Your task to perform on an android device: delete the emails in spam in the gmail app Image 0: 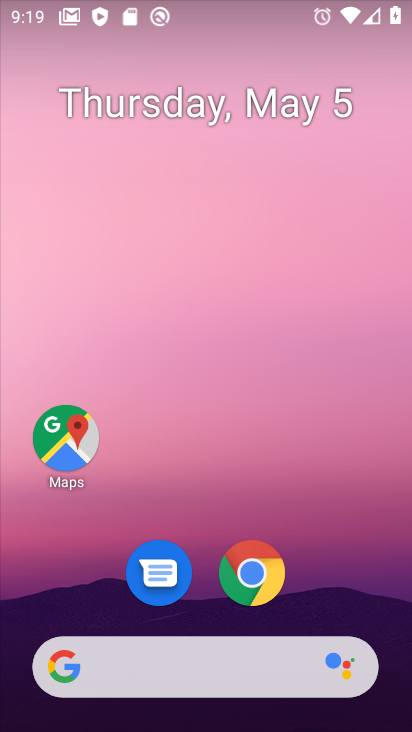
Step 0: drag from (158, 628) to (277, 130)
Your task to perform on an android device: delete the emails in spam in the gmail app Image 1: 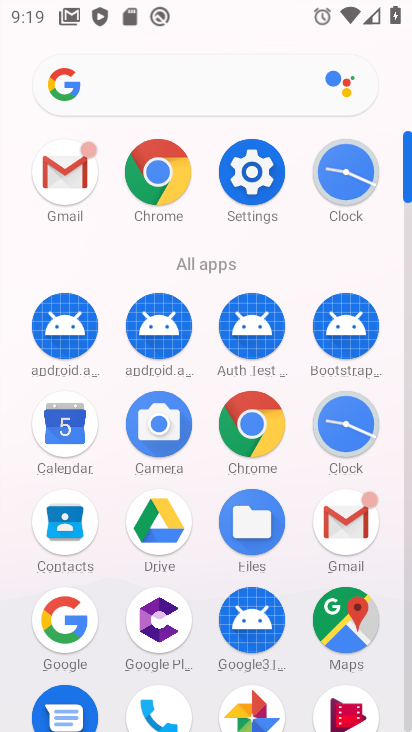
Step 1: click (76, 171)
Your task to perform on an android device: delete the emails in spam in the gmail app Image 2: 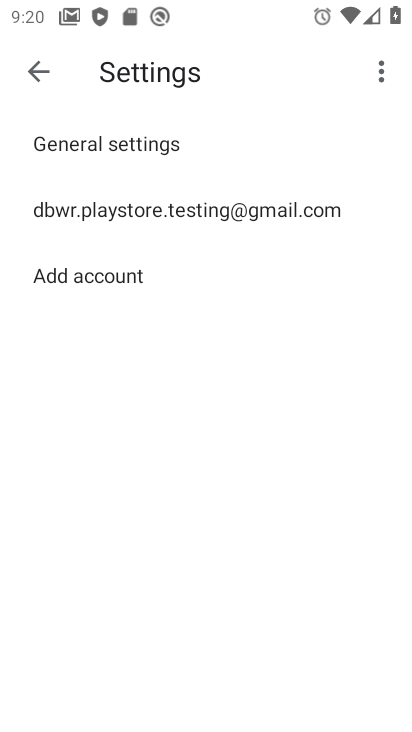
Step 2: click (31, 64)
Your task to perform on an android device: delete the emails in spam in the gmail app Image 3: 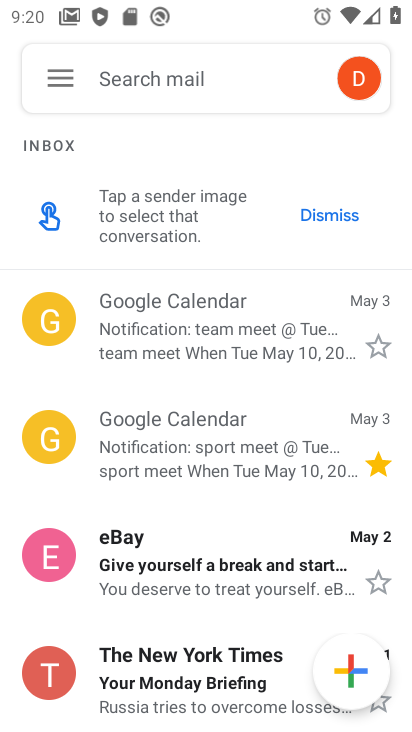
Step 3: click (53, 68)
Your task to perform on an android device: delete the emails in spam in the gmail app Image 4: 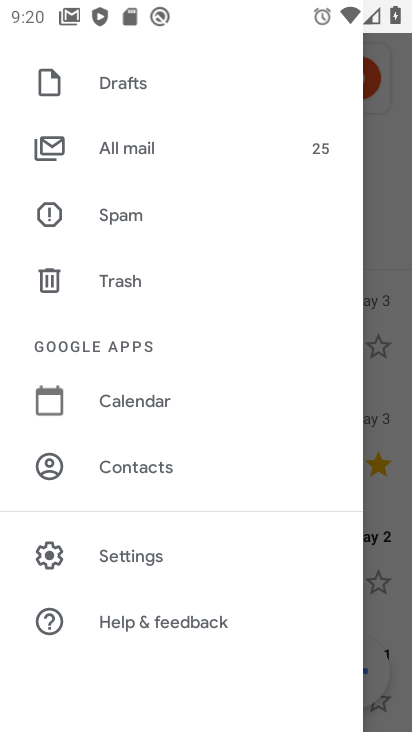
Step 4: click (124, 214)
Your task to perform on an android device: delete the emails in spam in the gmail app Image 5: 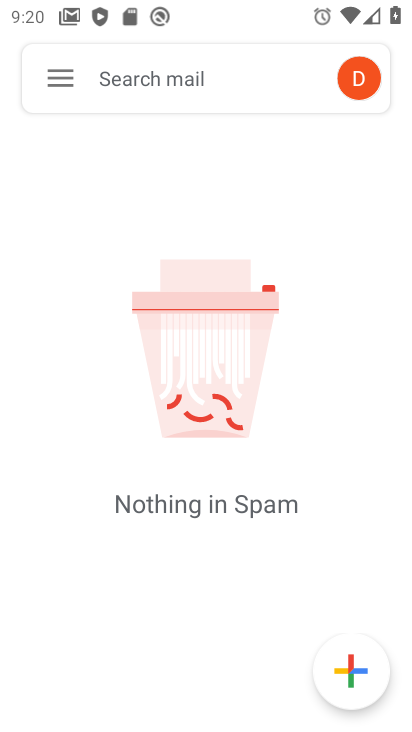
Step 5: task complete